Your task to perform on an android device: Search for Mexican restaurants on Maps Image 0: 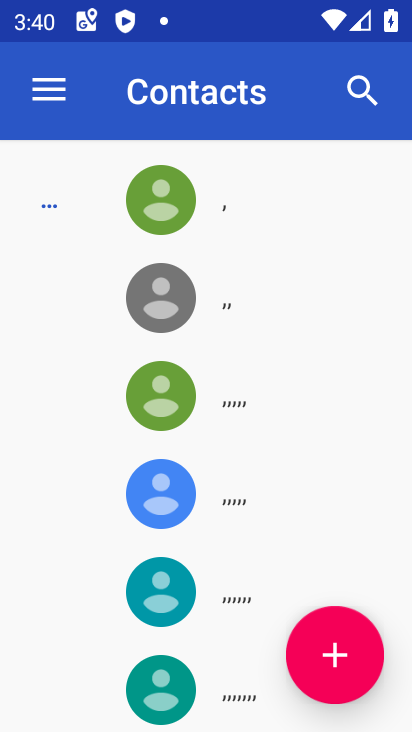
Step 0: press home button
Your task to perform on an android device: Search for Mexican restaurants on Maps Image 1: 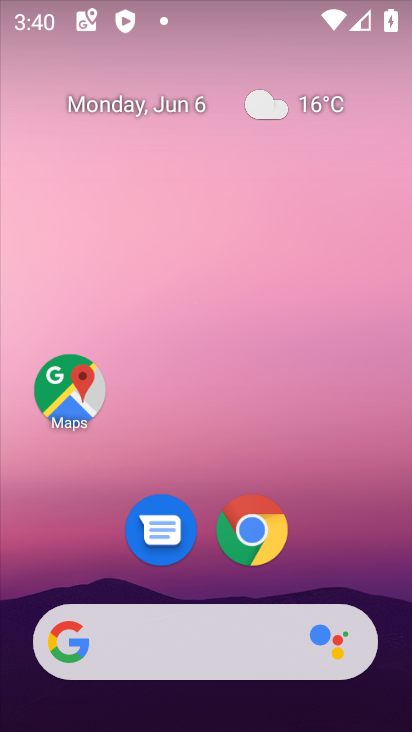
Step 1: click (64, 379)
Your task to perform on an android device: Search for Mexican restaurants on Maps Image 2: 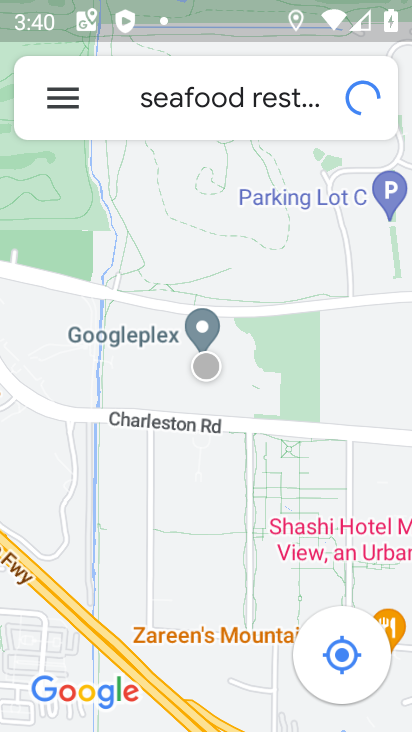
Step 2: click (303, 87)
Your task to perform on an android device: Search for Mexican restaurants on Maps Image 3: 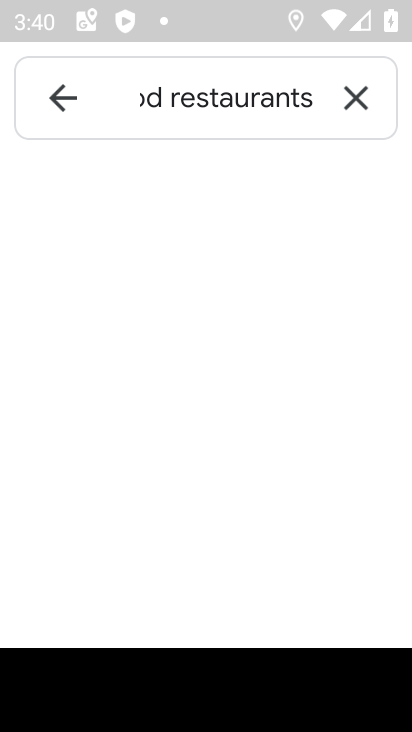
Step 3: click (346, 88)
Your task to perform on an android device: Search for Mexican restaurants on Maps Image 4: 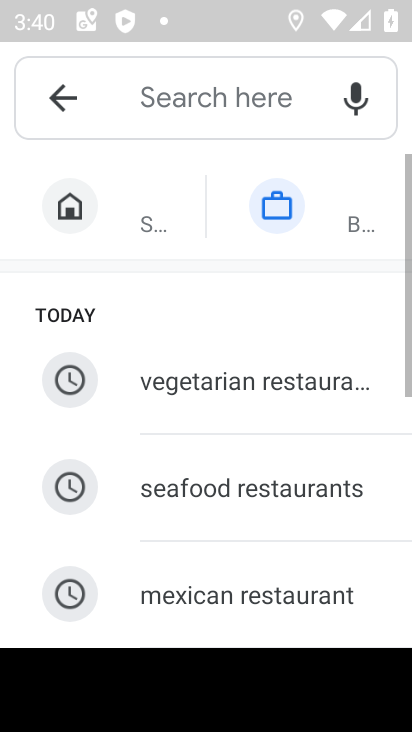
Step 4: drag from (233, 388) to (244, 161)
Your task to perform on an android device: Search for Mexican restaurants on Maps Image 5: 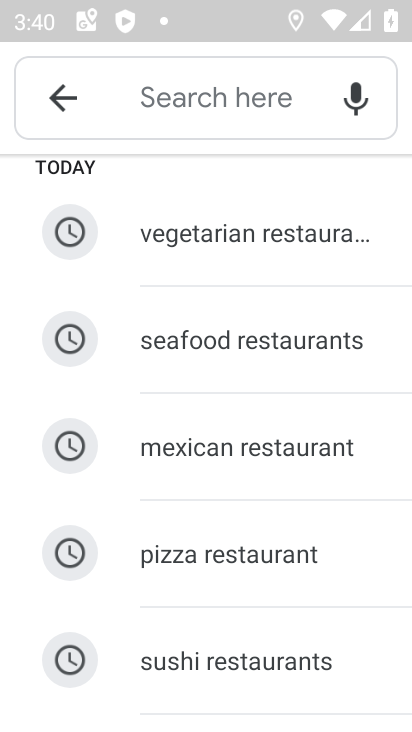
Step 5: click (245, 428)
Your task to perform on an android device: Search for Mexican restaurants on Maps Image 6: 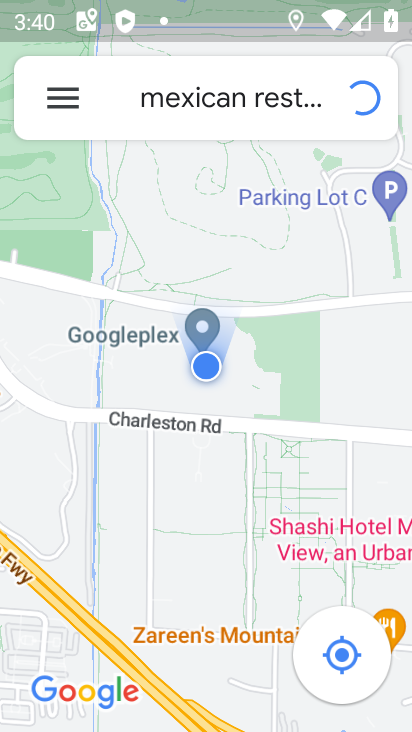
Step 6: task complete